Your task to perform on an android device: turn on data saver in the chrome app Image 0: 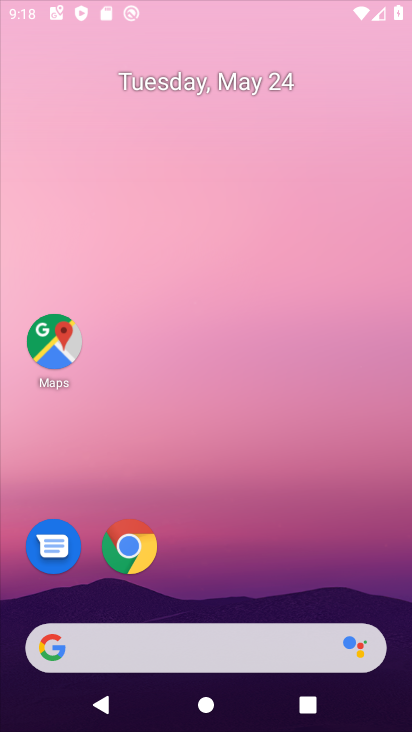
Step 0: click (272, 649)
Your task to perform on an android device: turn on data saver in the chrome app Image 1: 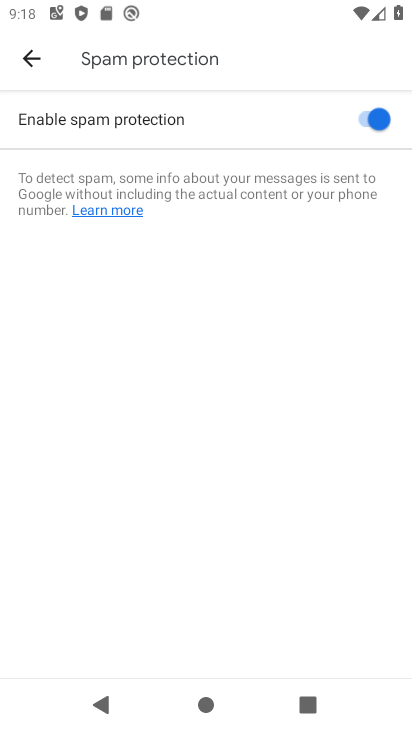
Step 1: press home button
Your task to perform on an android device: turn on data saver in the chrome app Image 2: 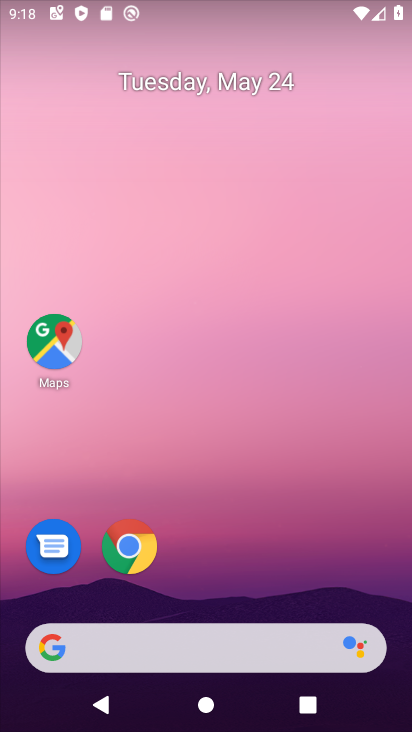
Step 2: click (136, 545)
Your task to perform on an android device: turn on data saver in the chrome app Image 3: 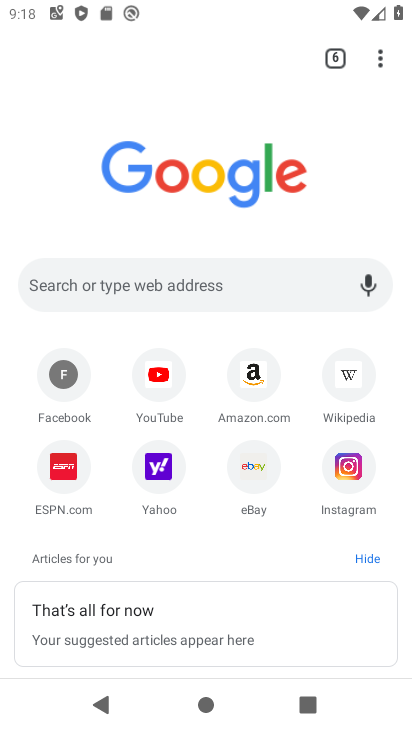
Step 3: click (376, 60)
Your task to perform on an android device: turn on data saver in the chrome app Image 4: 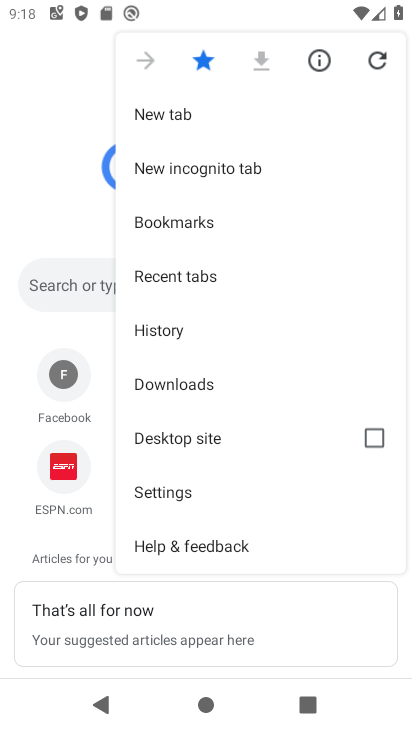
Step 4: click (235, 489)
Your task to perform on an android device: turn on data saver in the chrome app Image 5: 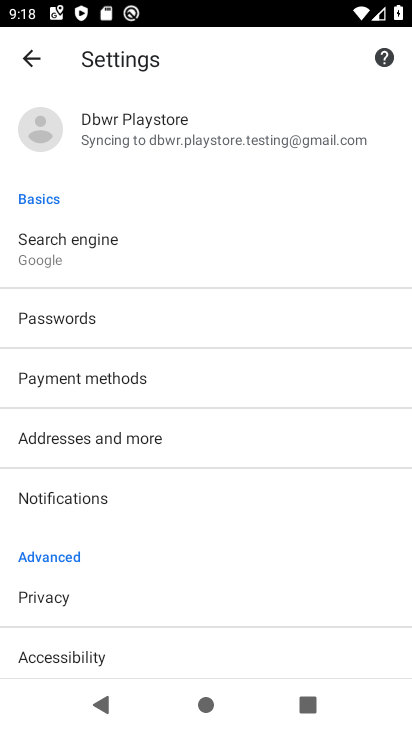
Step 5: drag from (231, 494) to (256, 160)
Your task to perform on an android device: turn on data saver in the chrome app Image 6: 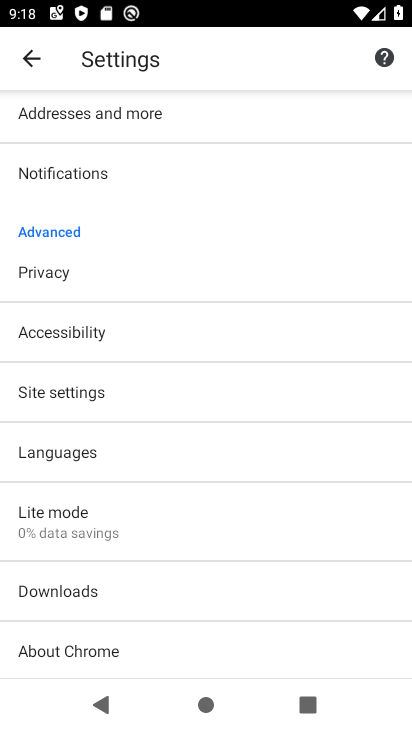
Step 6: click (122, 515)
Your task to perform on an android device: turn on data saver in the chrome app Image 7: 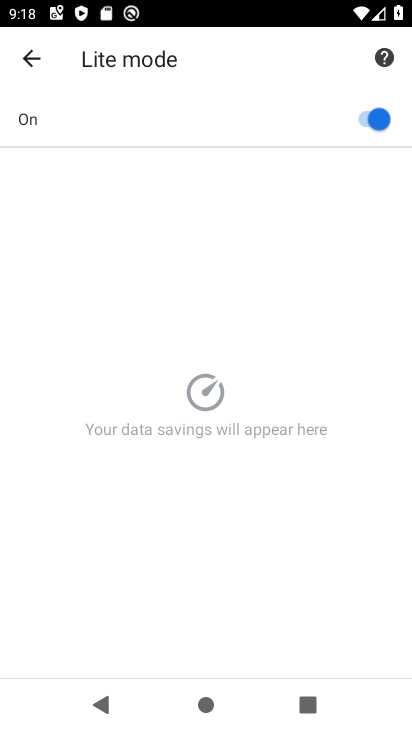
Step 7: task complete